Your task to perform on an android device: delete browsing data in the chrome app Image 0: 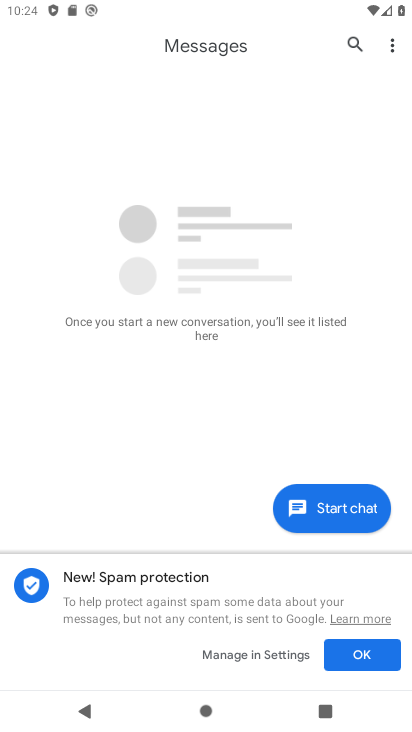
Step 0: press home button
Your task to perform on an android device: delete browsing data in the chrome app Image 1: 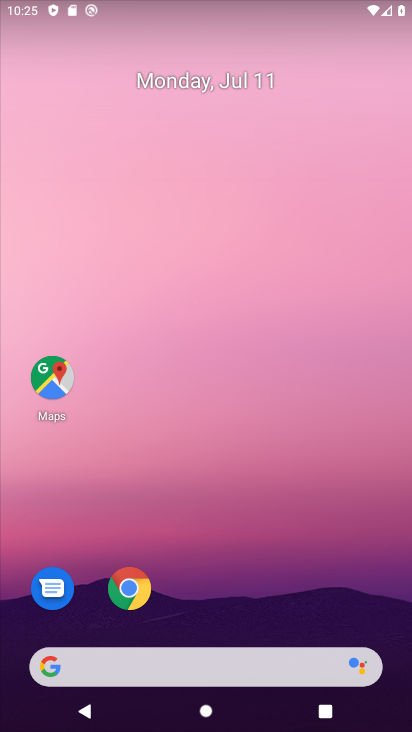
Step 1: click (124, 586)
Your task to perform on an android device: delete browsing data in the chrome app Image 2: 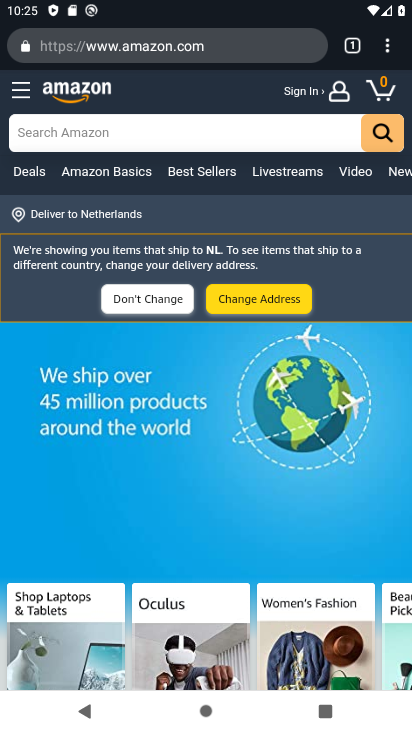
Step 2: click (403, 43)
Your task to perform on an android device: delete browsing data in the chrome app Image 3: 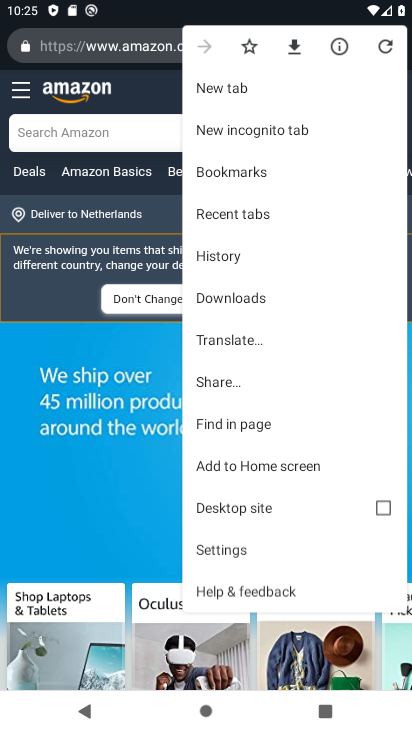
Step 3: click (385, 47)
Your task to perform on an android device: delete browsing data in the chrome app Image 4: 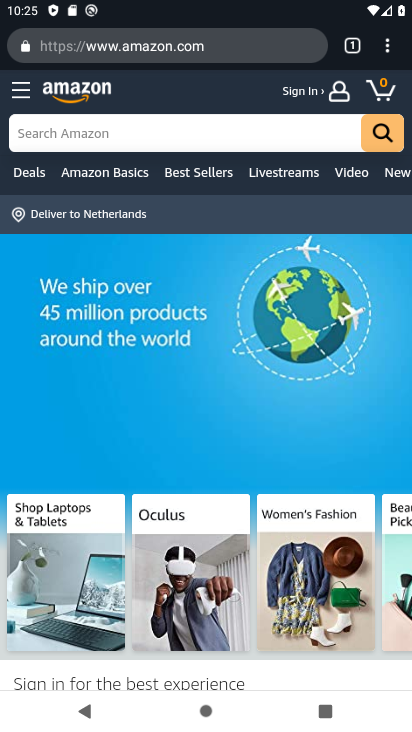
Step 4: click (393, 52)
Your task to perform on an android device: delete browsing data in the chrome app Image 5: 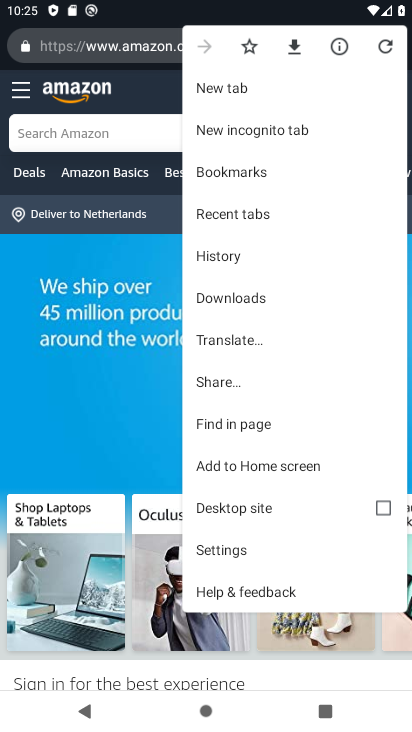
Step 5: click (228, 253)
Your task to perform on an android device: delete browsing data in the chrome app Image 6: 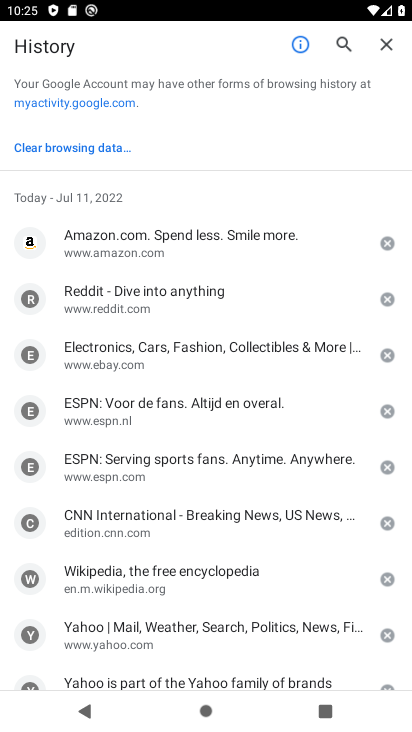
Step 6: click (69, 145)
Your task to perform on an android device: delete browsing data in the chrome app Image 7: 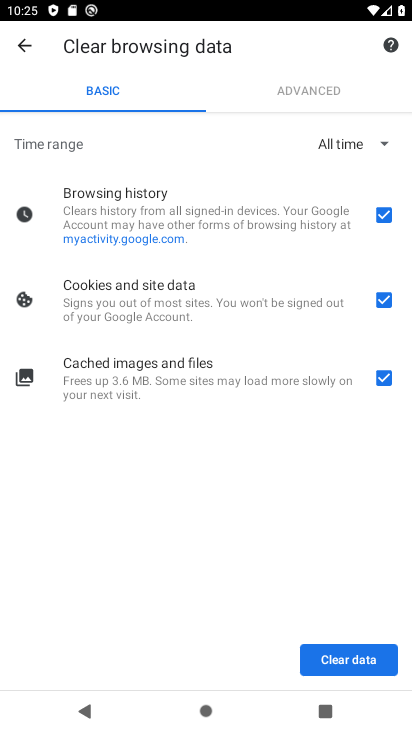
Step 7: click (336, 660)
Your task to perform on an android device: delete browsing data in the chrome app Image 8: 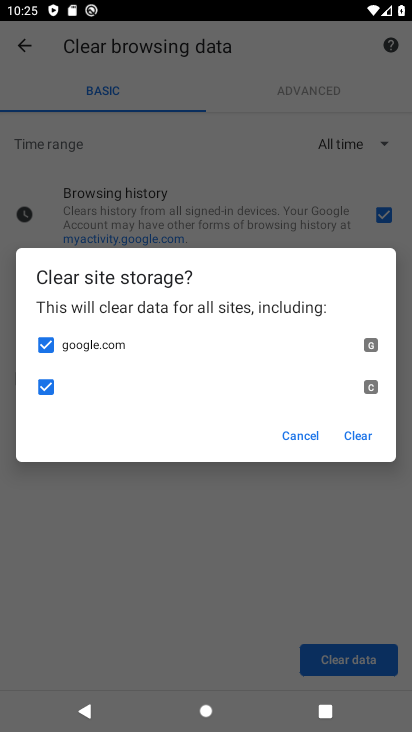
Step 8: click (360, 433)
Your task to perform on an android device: delete browsing data in the chrome app Image 9: 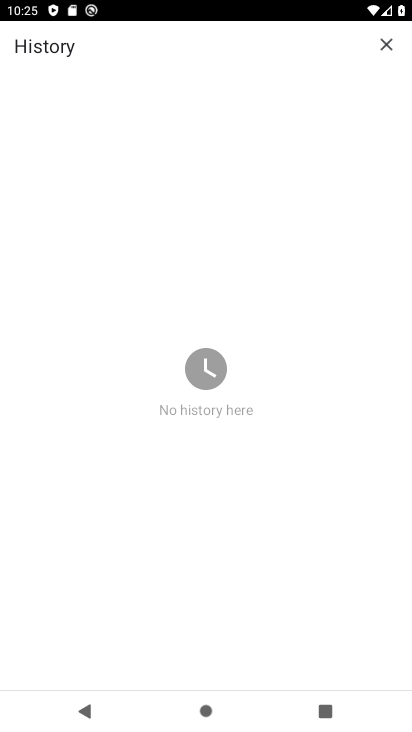
Step 9: task complete